Your task to perform on an android device: Show me the alarms in the clock app Image 0: 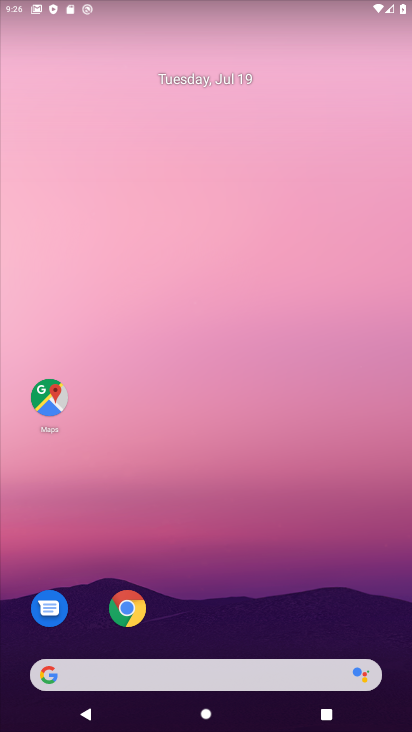
Step 0: drag from (263, 600) to (220, 249)
Your task to perform on an android device: Show me the alarms in the clock app Image 1: 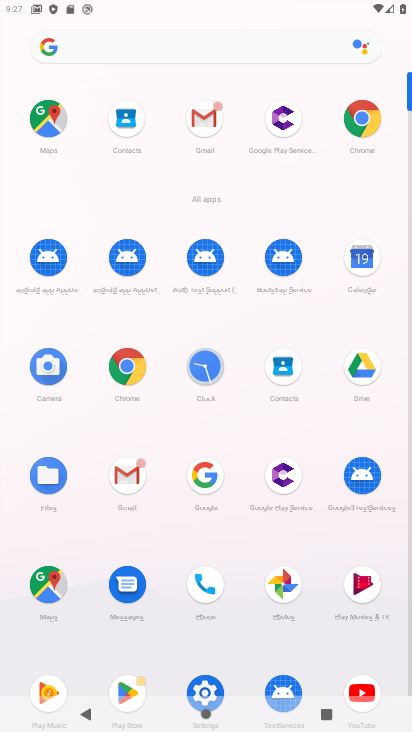
Step 1: click (201, 368)
Your task to perform on an android device: Show me the alarms in the clock app Image 2: 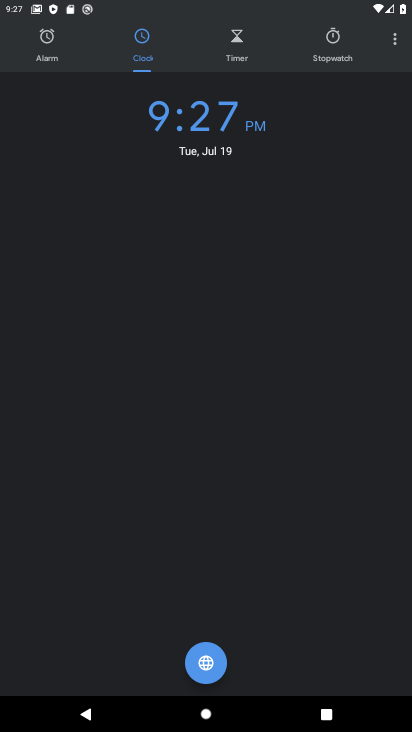
Step 2: click (398, 48)
Your task to perform on an android device: Show me the alarms in the clock app Image 3: 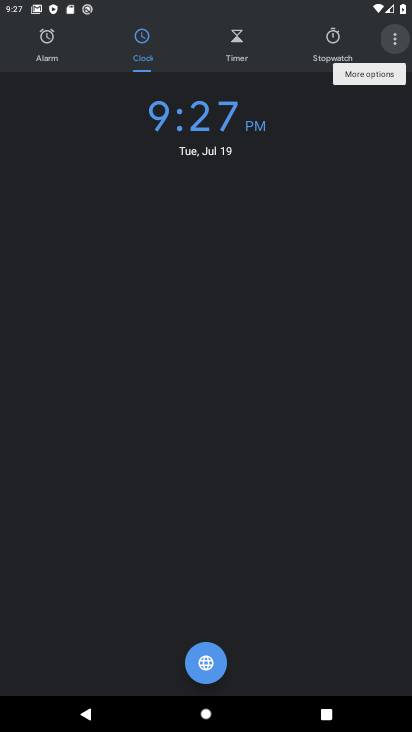
Step 3: click (398, 48)
Your task to perform on an android device: Show me the alarms in the clock app Image 4: 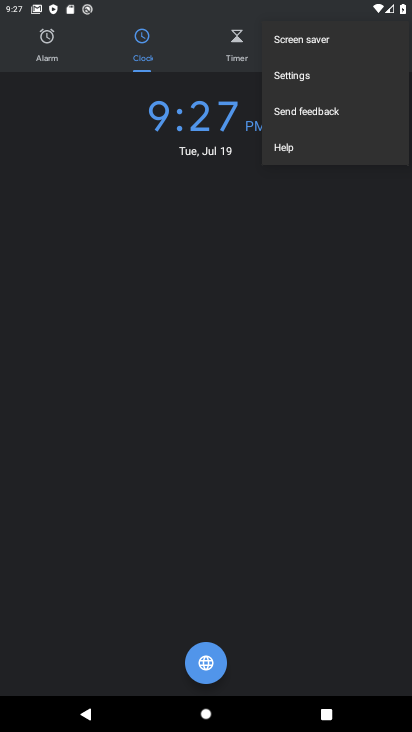
Step 4: click (114, 140)
Your task to perform on an android device: Show me the alarms in the clock app Image 5: 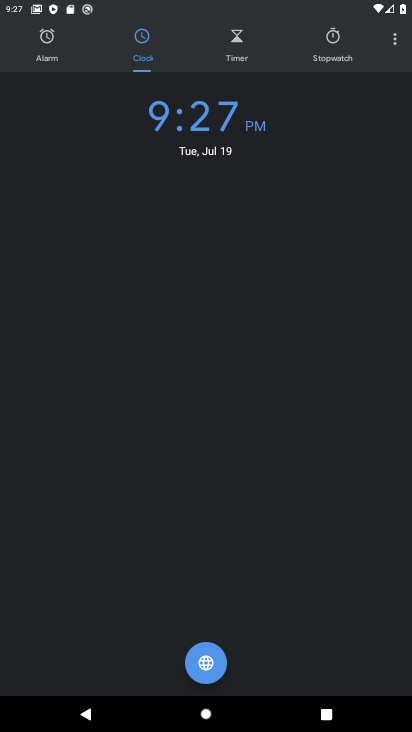
Step 5: click (52, 58)
Your task to perform on an android device: Show me the alarms in the clock app Image 6: 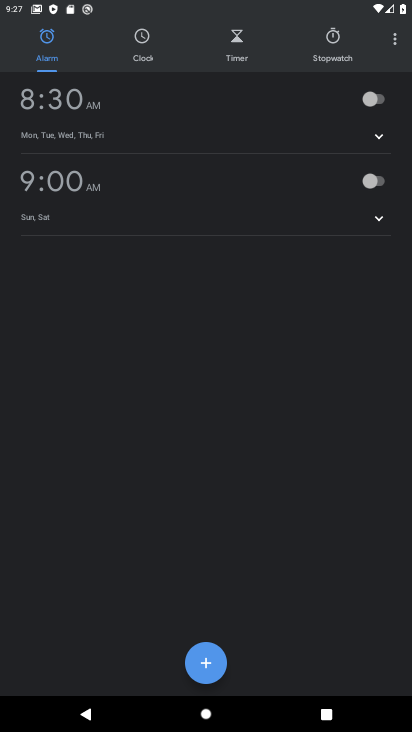
Step 6: task complete